Your task to perform on an android device: change the clock style Image 0: 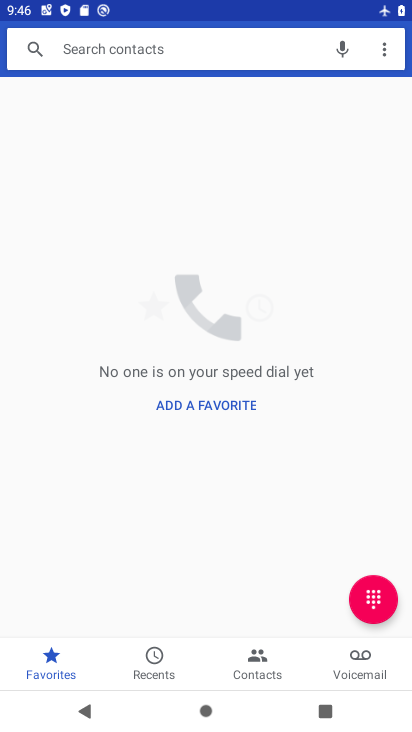
Step 0: press home button
Your task to perform on an android device: change the clock style Image 1: 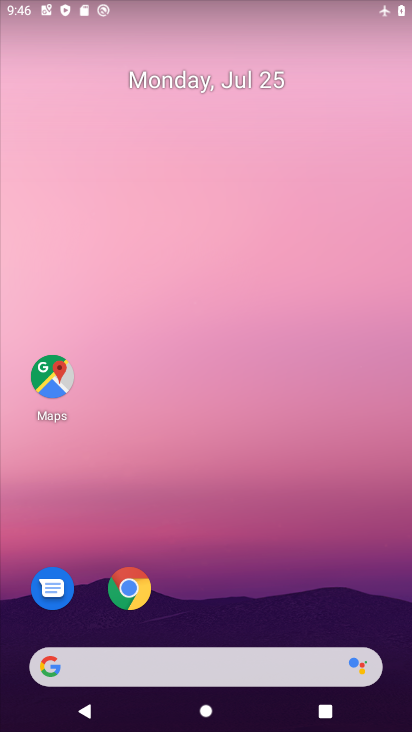
Step 1: drag from (282, 663) to (295, 10)
Your task to perform on an android device: change the clock style Image 2: 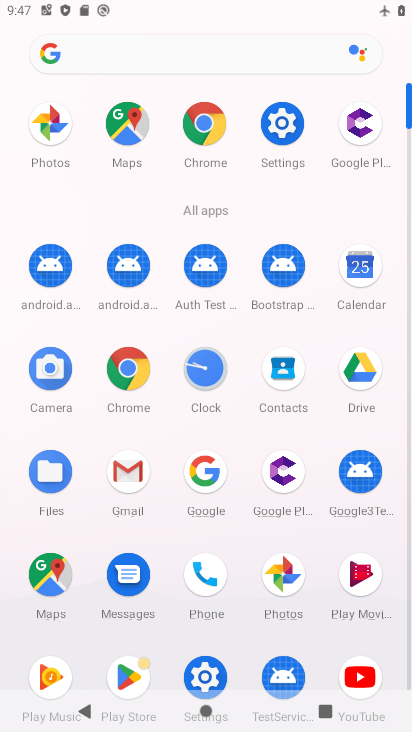
Step 2: click (206, 379)
Your task to perform on an android device: change the clock style Image 3: 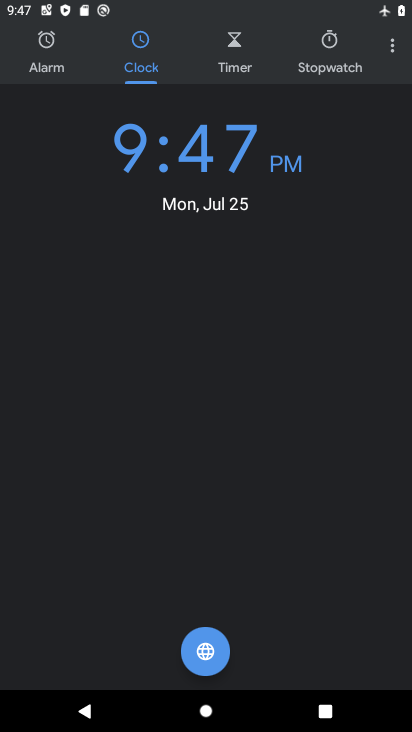
Step 3: drag from (399, 43) to (244, 82)
Your task to perform on an android device: change the clock style Image 4: 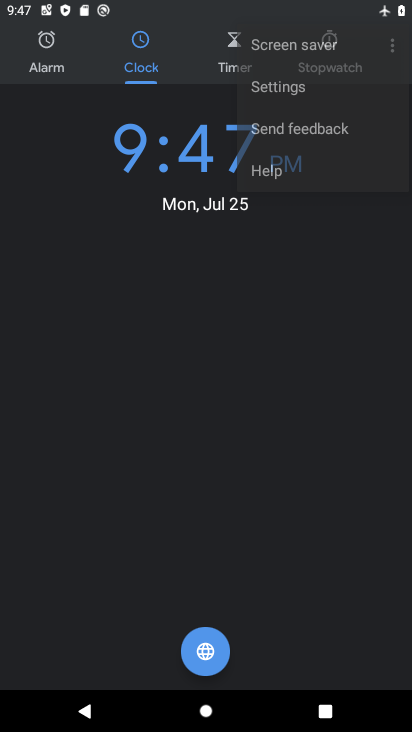
Step 4: click (239, 82)
Your task to perform on an android device: change the clock style Image 5: 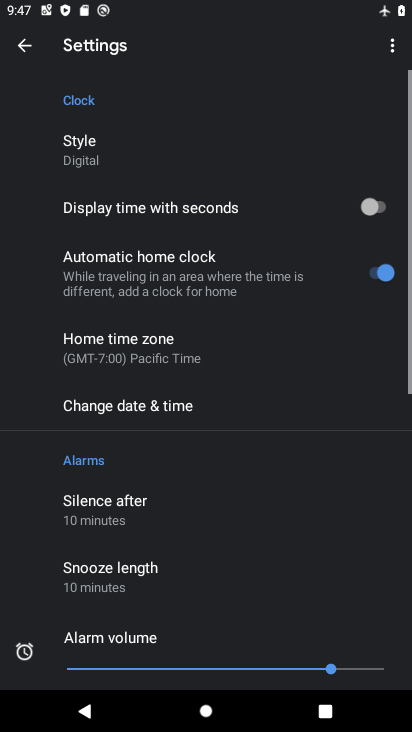
Step 5: click (198, 163)
Your task to perform on an android device: change the clock style Image 6: 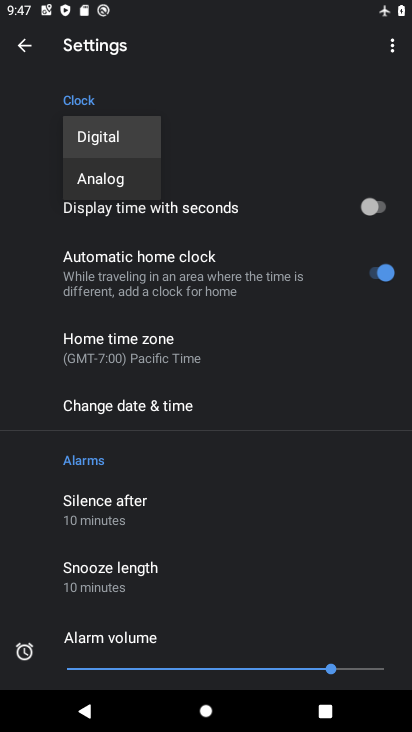
Step 6: click (107, 169)
Your task to perform on an android device: change the clock style Image 7: 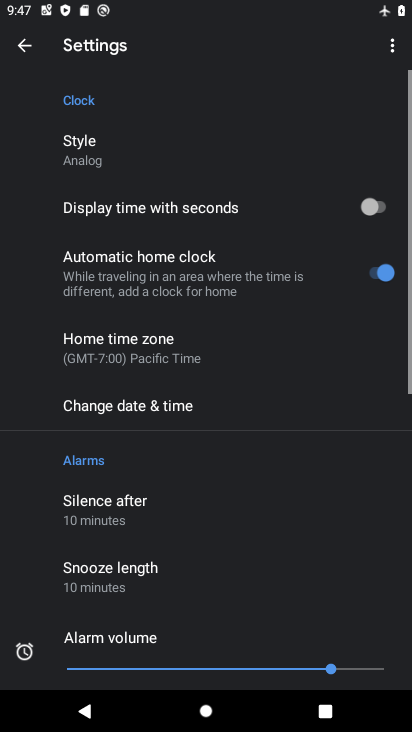
Step 7: task complete